Your task to perform on an android device: turn off location Image 0: 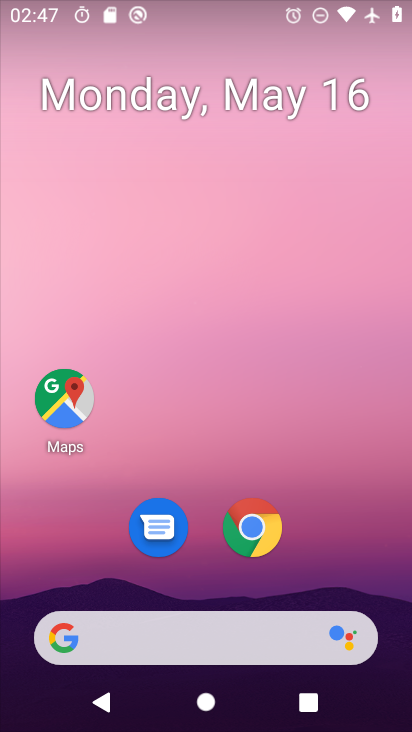
Step 0: drag from (174, 619) to (281, 51)
Your task to perform on an android device: turn off location Image 1: 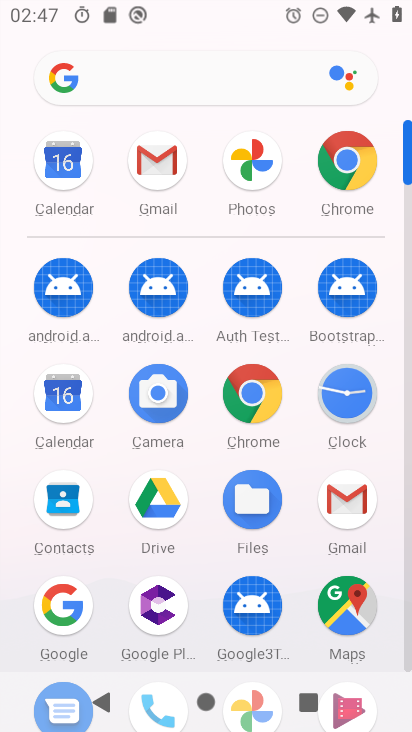
Step 1: drag from (125, 573) to (297, 150)
Your task to perform on an android device: turn off location Image 2: 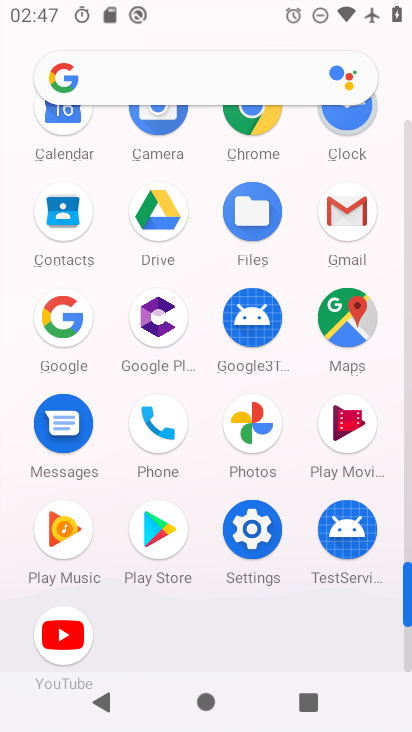
Step 2: click (262, 525)
Your task to perform on an android device: turn off location Image 3: 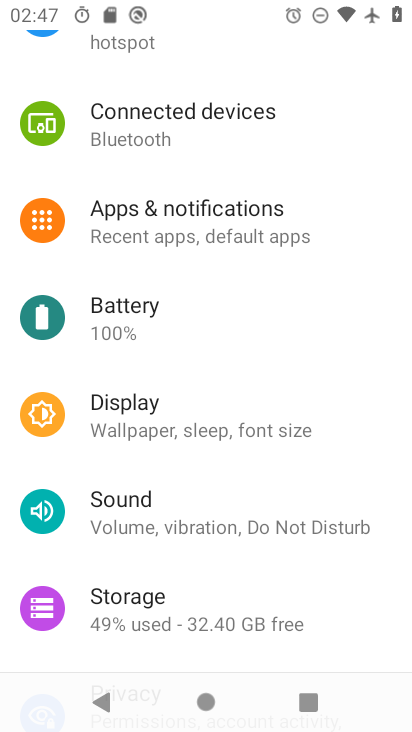
Step 3: drag from (211, 561) to (318, 168)
Your task to perform on an android device: turn off location Image 4: 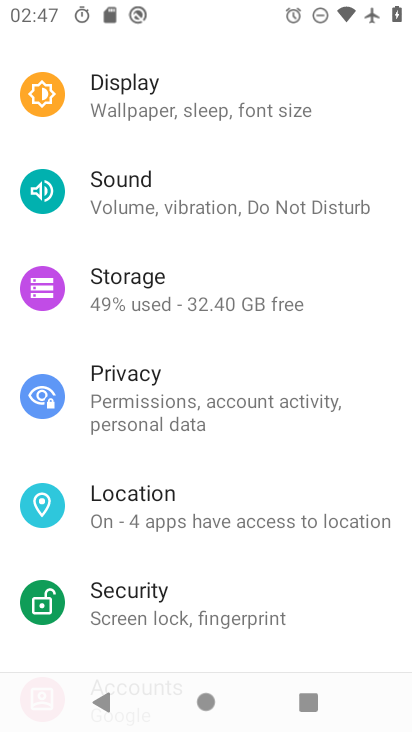
Step 4: click (176, 515)
Your task to perform on an android device: turn off location Image 5: 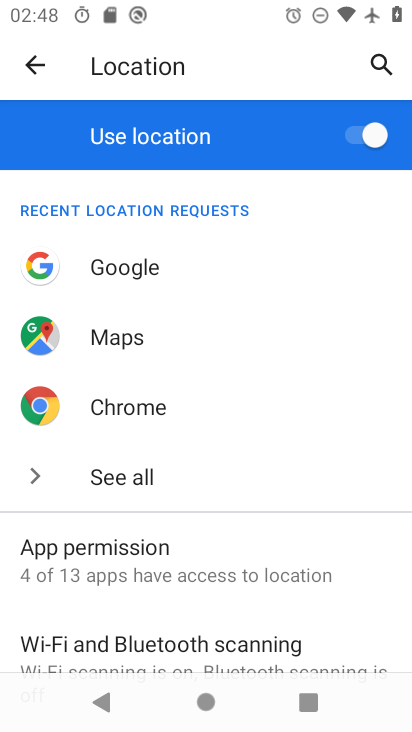
Step 5: click (355, 131)
Your task to perform on an android device: turn off location Image 6: 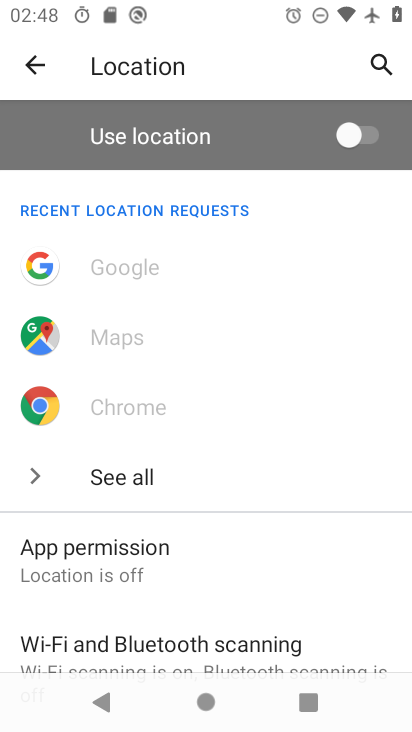
Step 6: task complete